Your task to perform on an android device: Search for sushi restaurants on Maps Image 0: 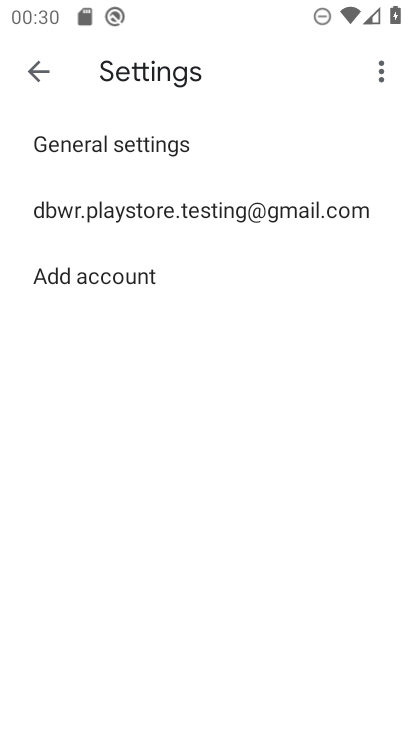
Step 0: press home button
Your task to perform on an android device: Search for sushi restaurants on Maps Image 1: 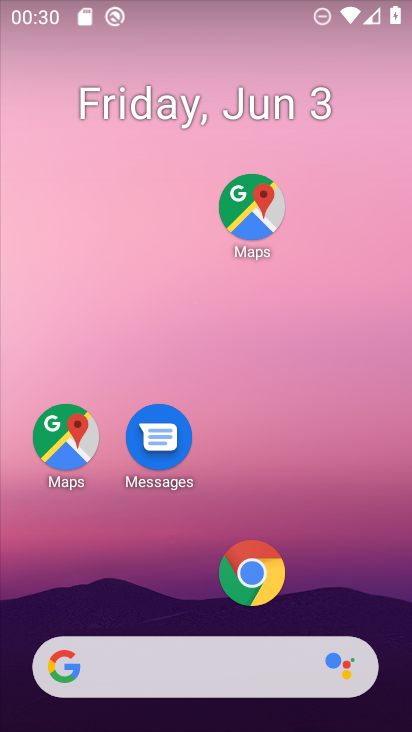
Step 1: click (91, 441)
Your task to perform on an android device: Search for sushi restaurants on Maps Image 2: 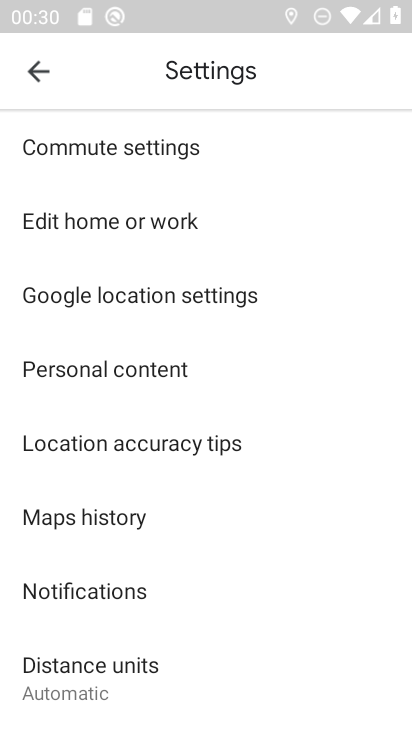
Step 2: click (28, 67)
Your task to perform on an android device: Search for sushi restaurants on Maps Image 3: 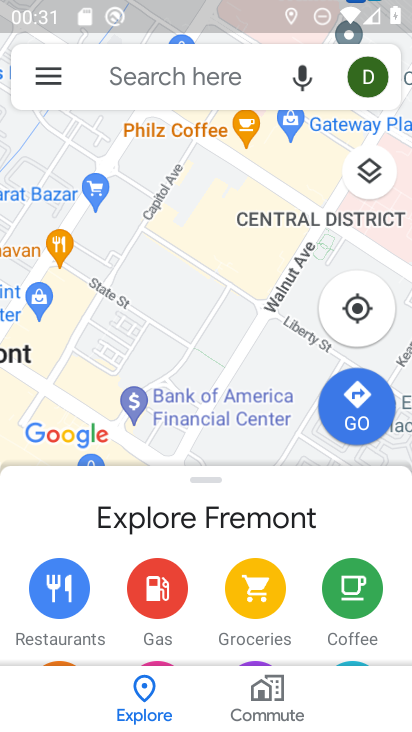
Step 3: click (196, 68)
Your task to perform on an android device: Search for sushi restaurants on Maps Image 4: 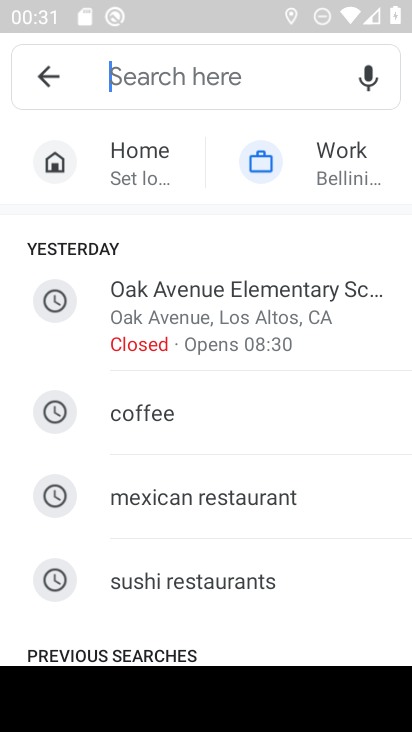
Step 4: click (217, 588)
Your task to perform on an android device: Search for sushi restaurants on Maps Image 5: 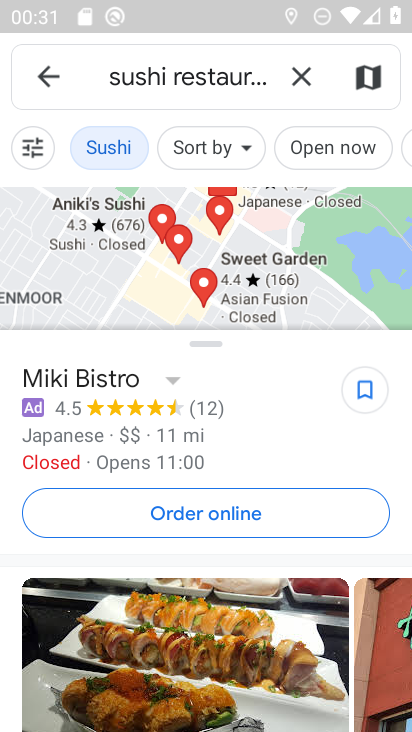
Step 5: task complete